Your task to perform on an android device: star an email in the gmail app Image 0: 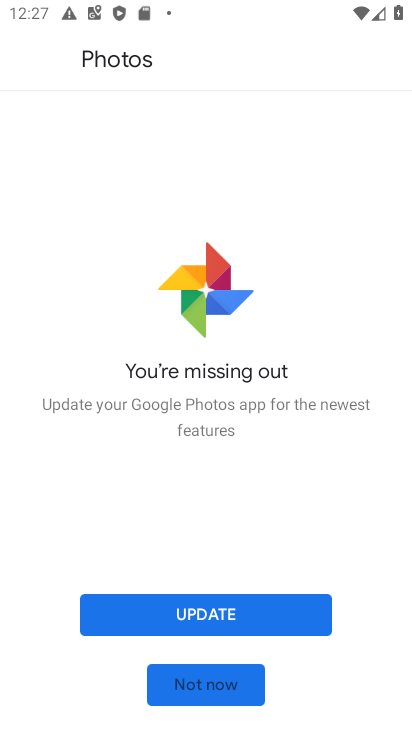
Step 0: press home button
Your task to perform on an android device: star an email in the gmail app Image 1: 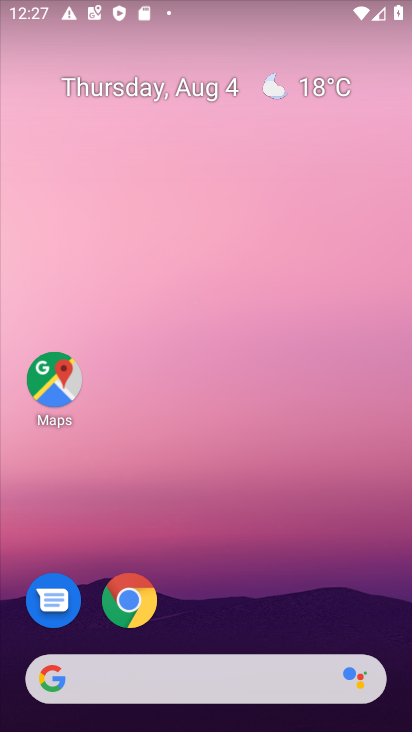
Step 1: drag from (123, 684) to (324, 39)
Your task to perform on an android device: star an email in the gmail app Image 2: 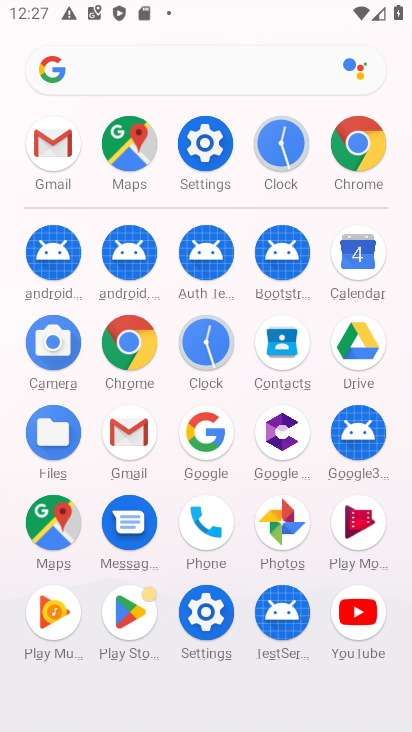
Step 2: click (51, 150)
Your task to perform on an android device: star an email in the gmail app Image 3: 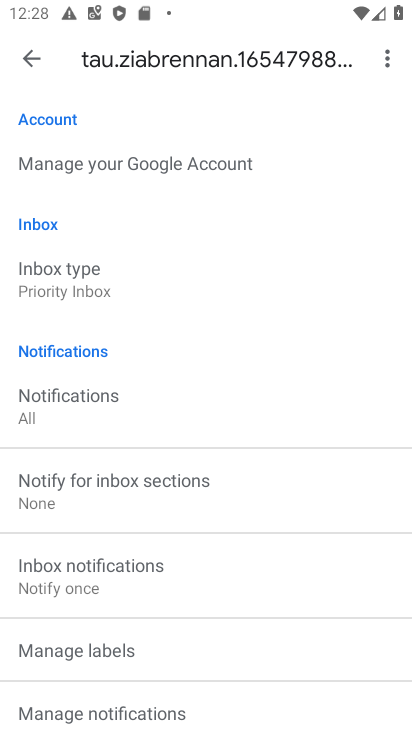
Step 3: click (30, 59)
Your task to perform on an android device: star an email in the gmail app Image 4: 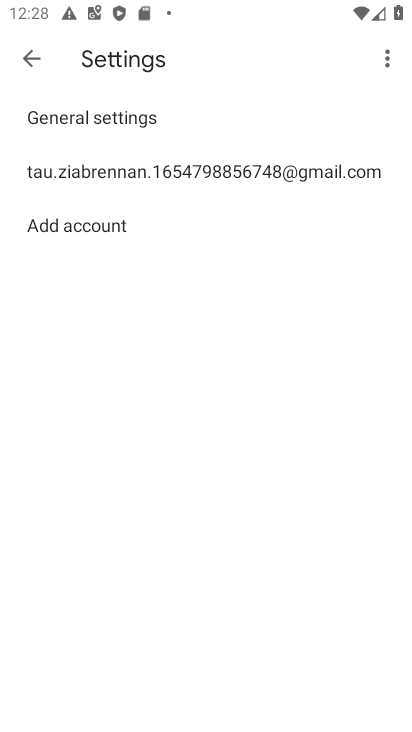
Step 4: click (30, 52)
Your task to perform on an android device: star an email in the gmail app Image 5: 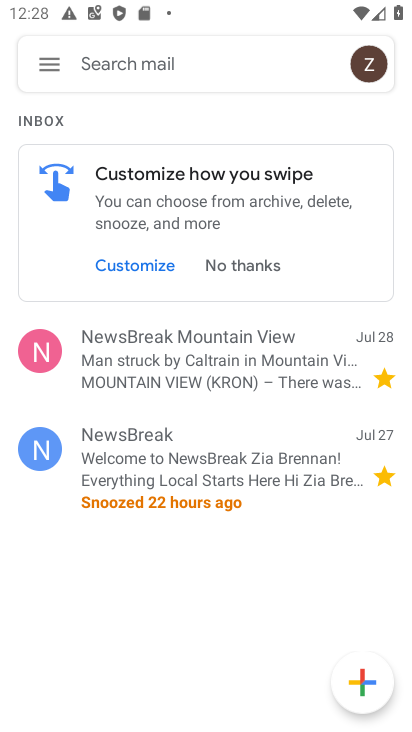
Step 5: task complete